Your task to perform on an android device: Add dell xps to the cart on bestbuy.com, then select checkout. Image 0: 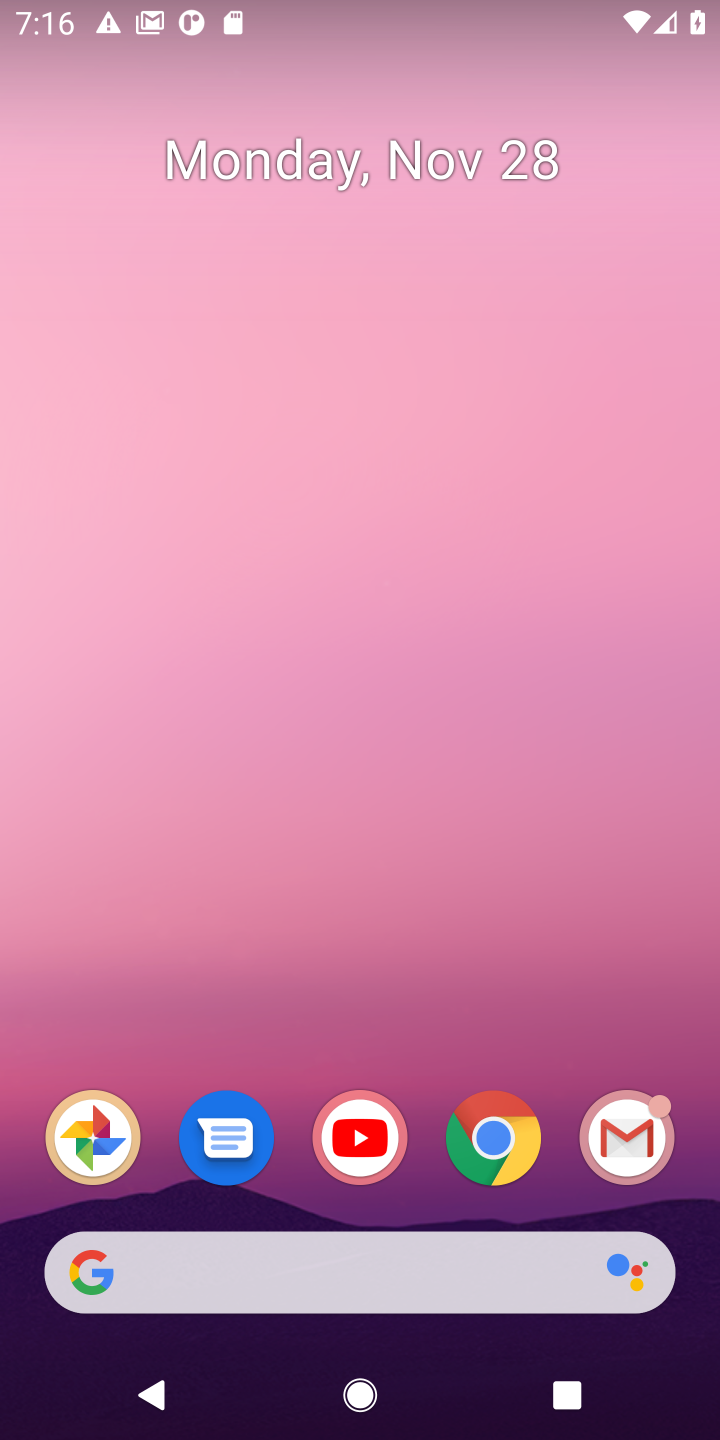
Step 0: click (481, 1141)
Your task to perform on an android device: Add dell xps to the cart on bestbuy.com, then select checkout. Image 1: 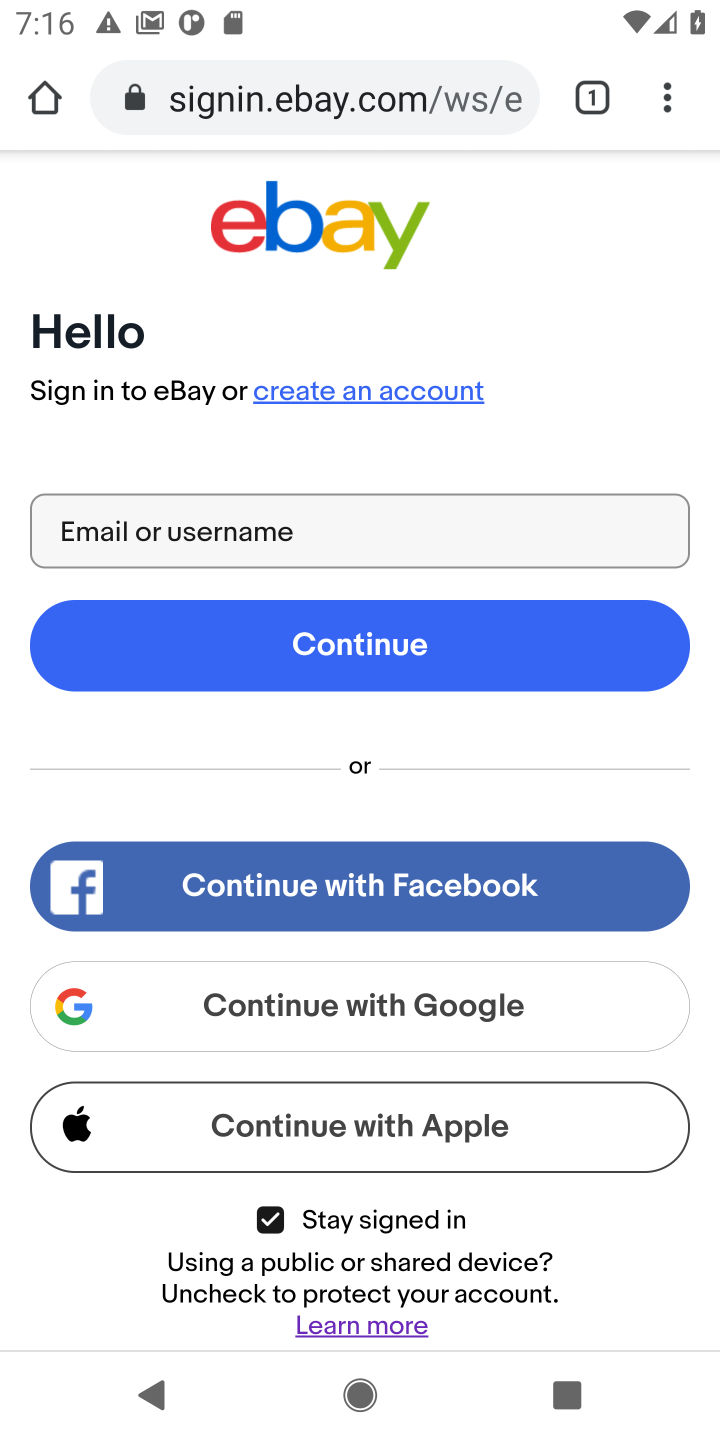
Step 1: click (236, 101)
Your task to perform on an android device: Add dell xps to the cart on bestbuy.com, then select checkout. Image 2: 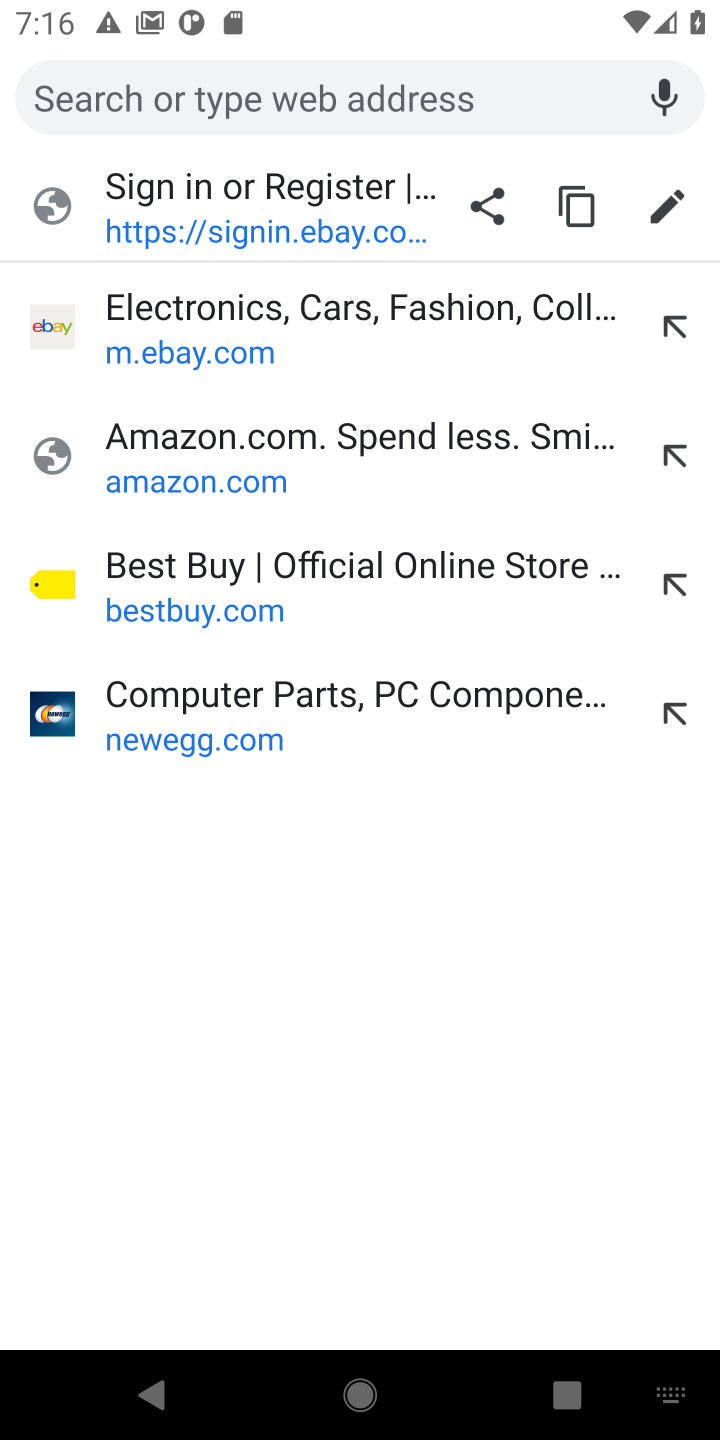
Step 2: click (169, 608)
Your task to perform on an android device: Add dell xps to the cart on bestbuy.com, then select checkout. Image 3: 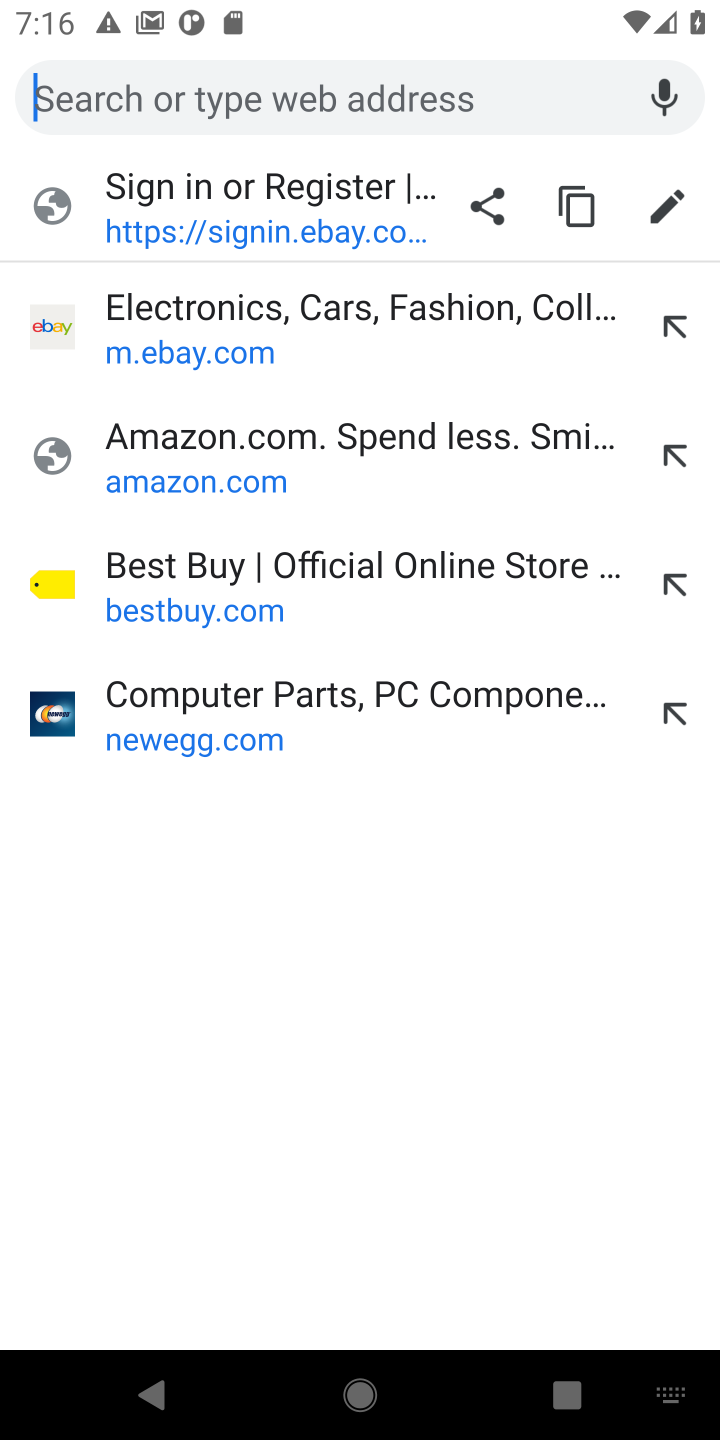
Step 3: click (117, 584)
Your task to perform on an android device: Add dell xps to the cart on bestbuy.com, then select checkout. Image 4: 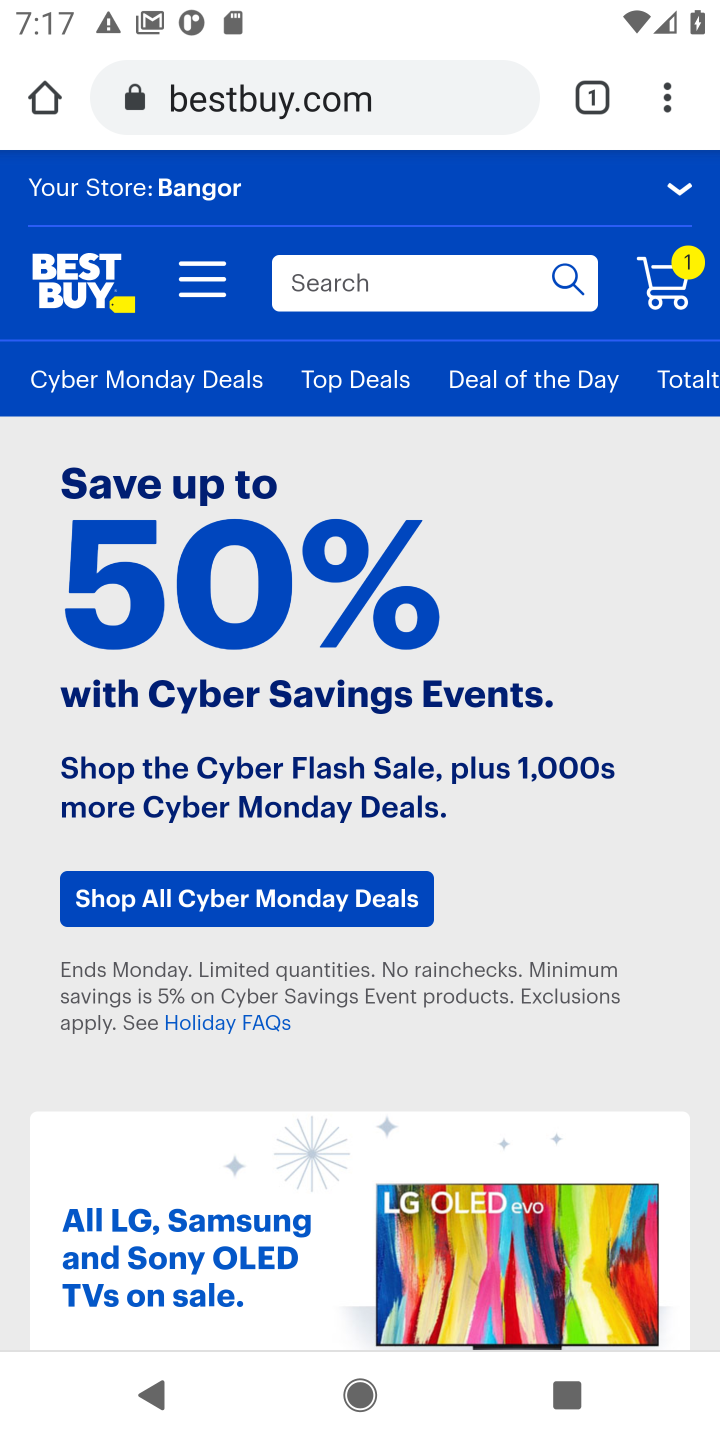
Step 4: click (340, 283)
Your task to perform on an android device: Add dell xps to the cart on bestbuy.com, then select checkout. Image 5: 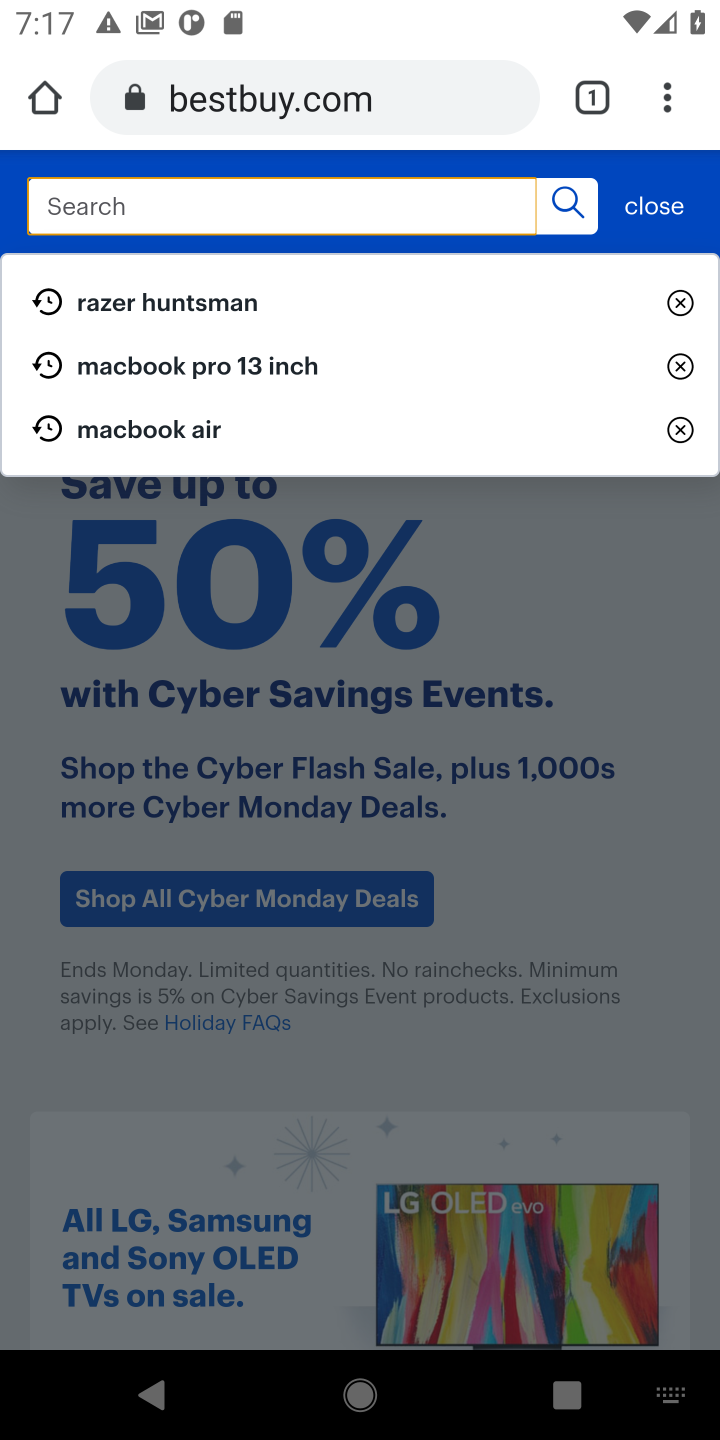
Step 5: type "dell xps"
Your task to perform on an android device: Add dell xps to the cart on bestbuy.com, then select checkout. Image 6: 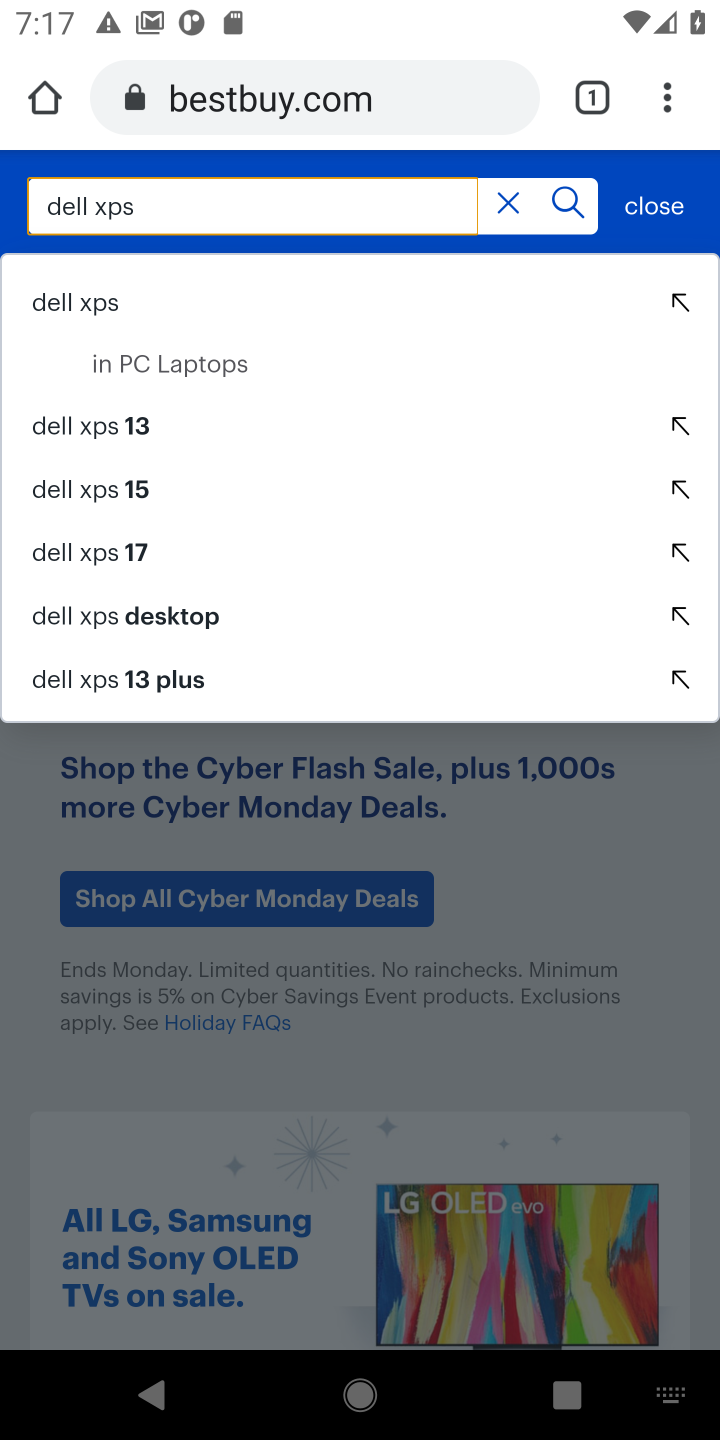
Step 6: click (38, 309)
Your task to perform on an android device: Add dell xps to the cart on bestbuy.com, then select checkout. Image 7: 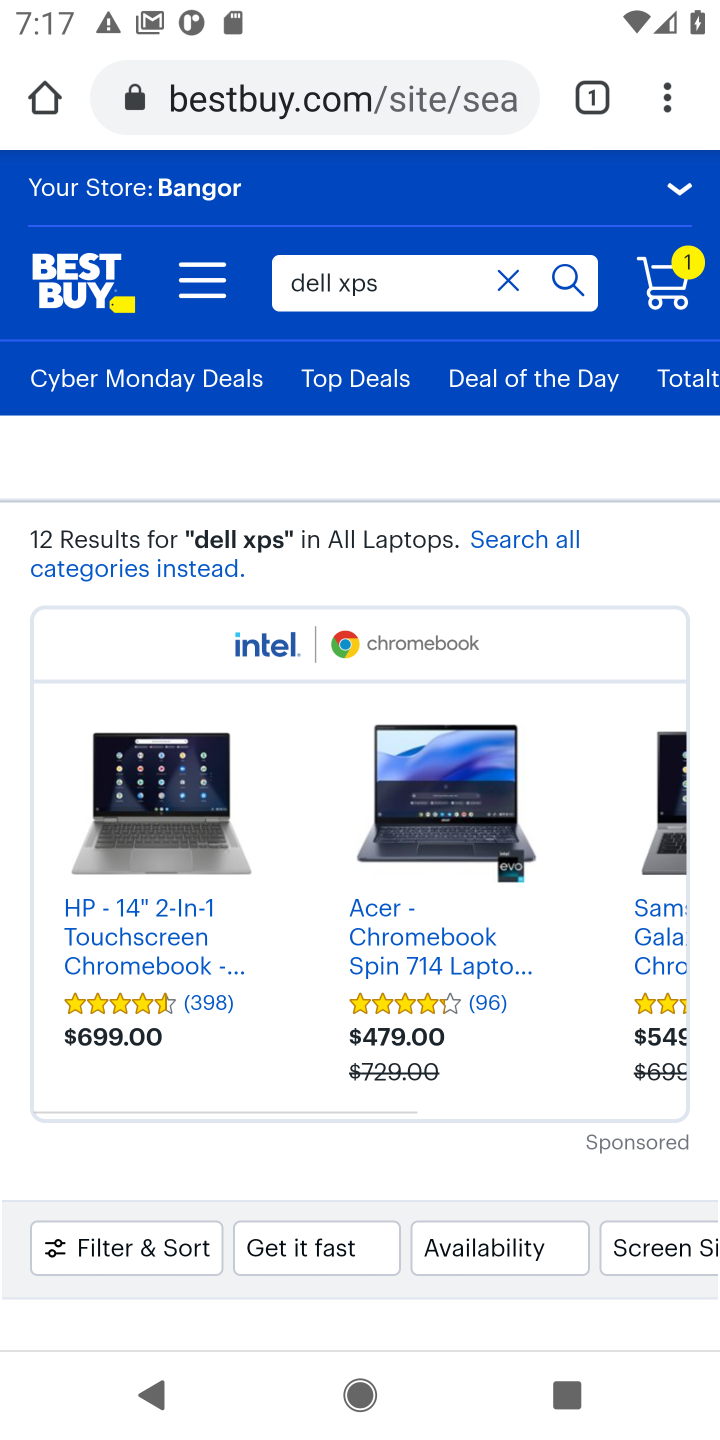
Step 7: drag from (572, 802) to (555, 311)
Your task to perform on an android device: Add dell xps to the cart on bestbuy.com, then select checkout. Image 8: 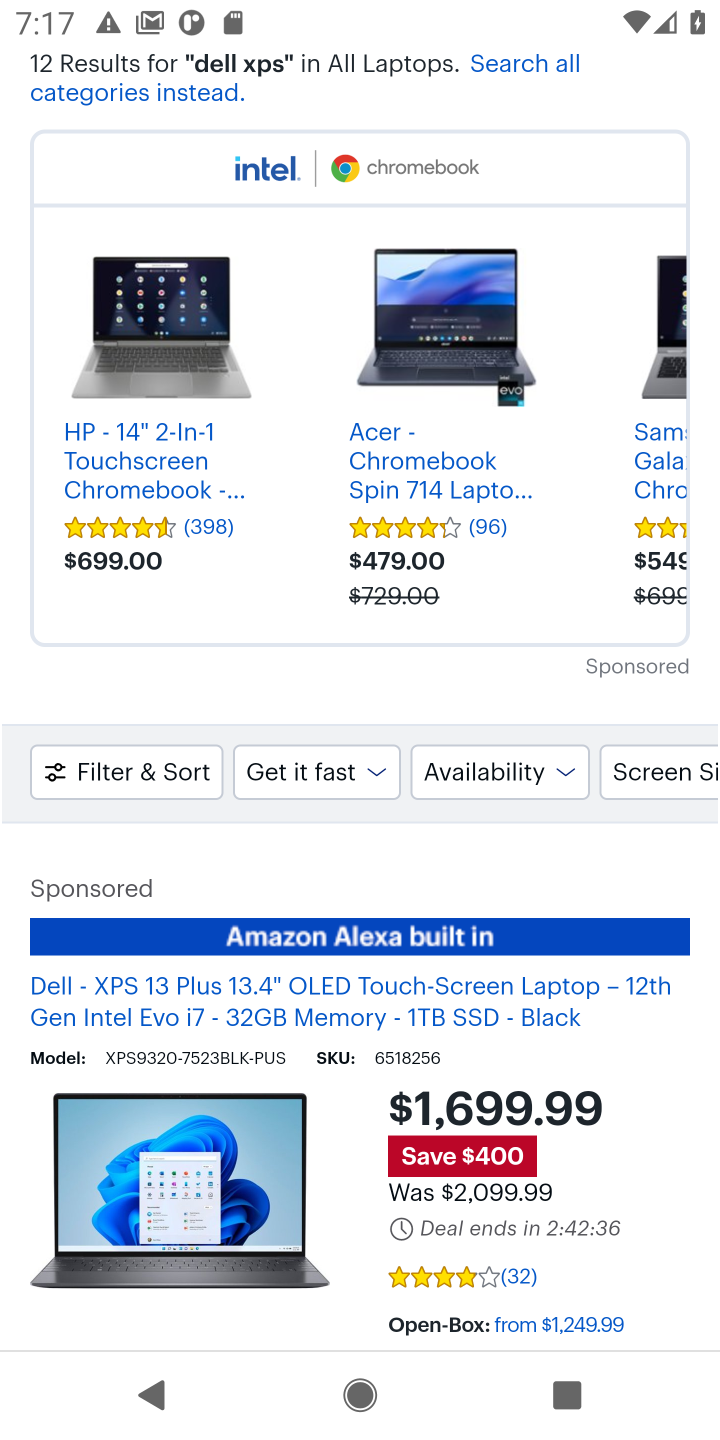
Step 8: drag from (461, 855) to (466, 438)
Your task to perform on an android device: Add dell xps to the cart on bestbuy.com, then select checkout. Image 9: 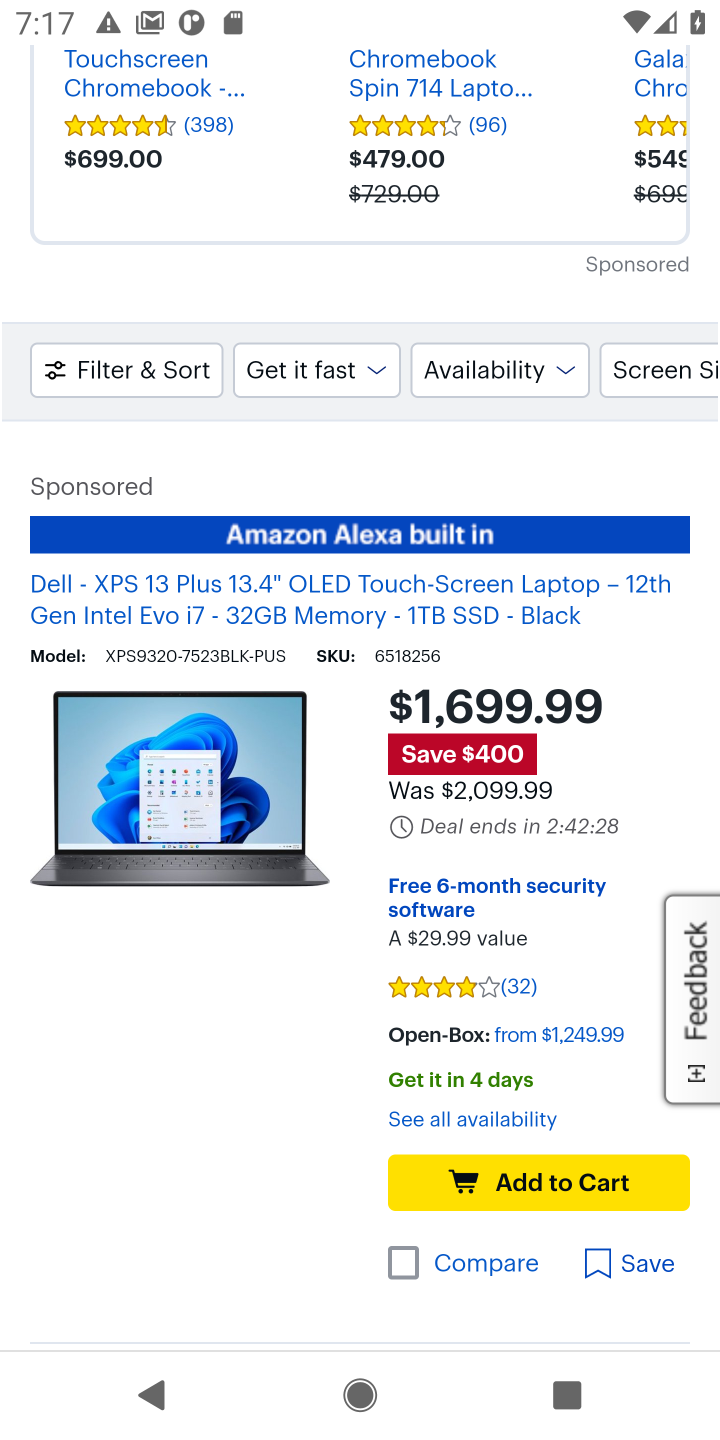
Step 9: click (505, 1193)
Your task to perform on an android device: Add dell xps to the cart on bestbuy.com, then select checkout. Image 10: 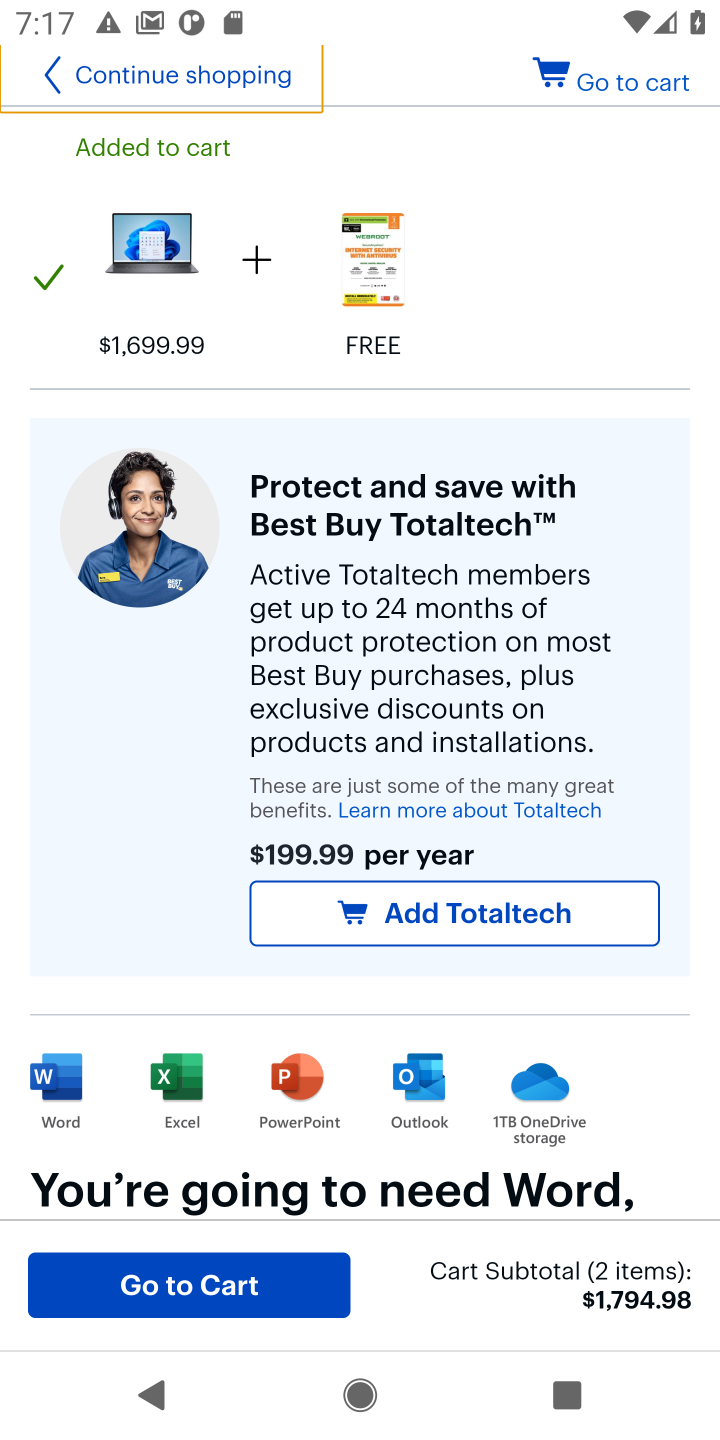
Step 10: click (613, 82)
Your task to perform on an android device: Add dell xps to the cart on bestbuy.com, then select checkout. Image 11: 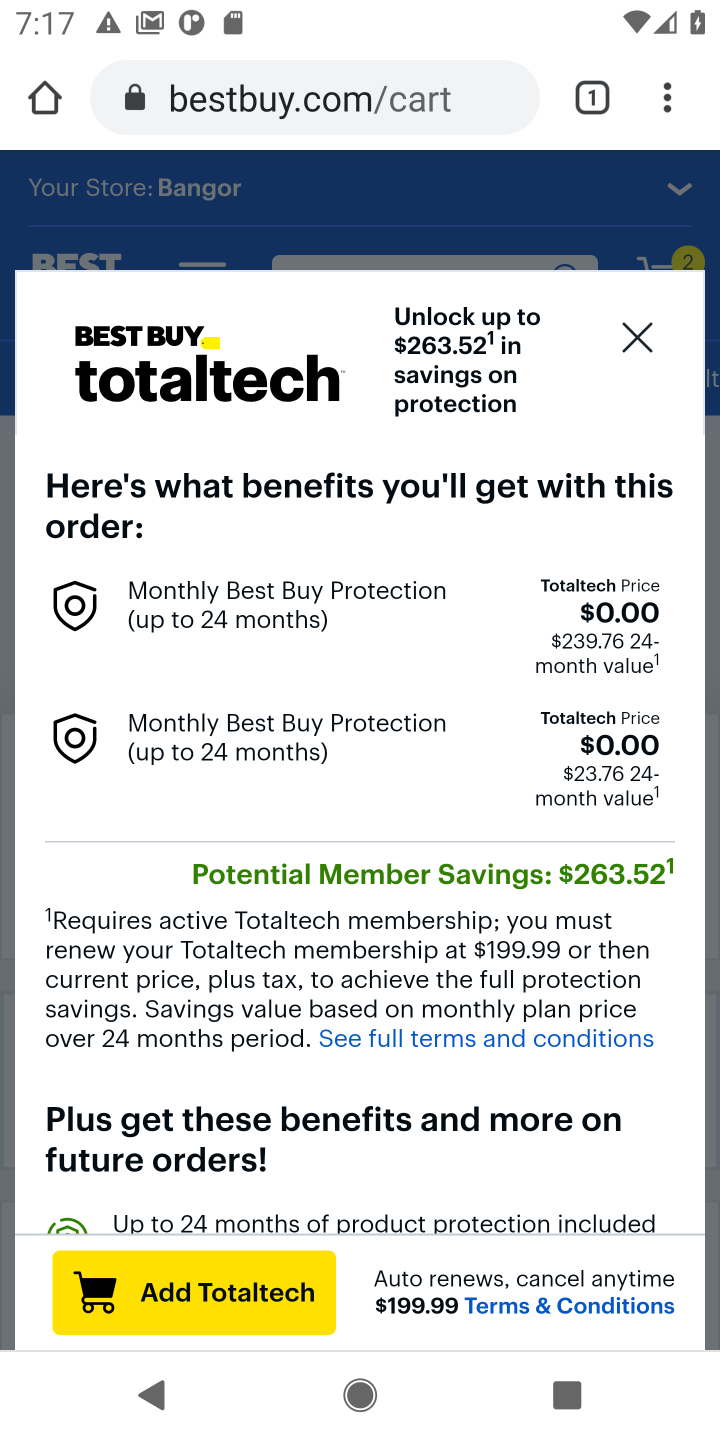
Step 11: click (641, 336)
Your task to perform on an android device: Add dell xps to the cart on bestbuy.com, then select checkout. Image 12: 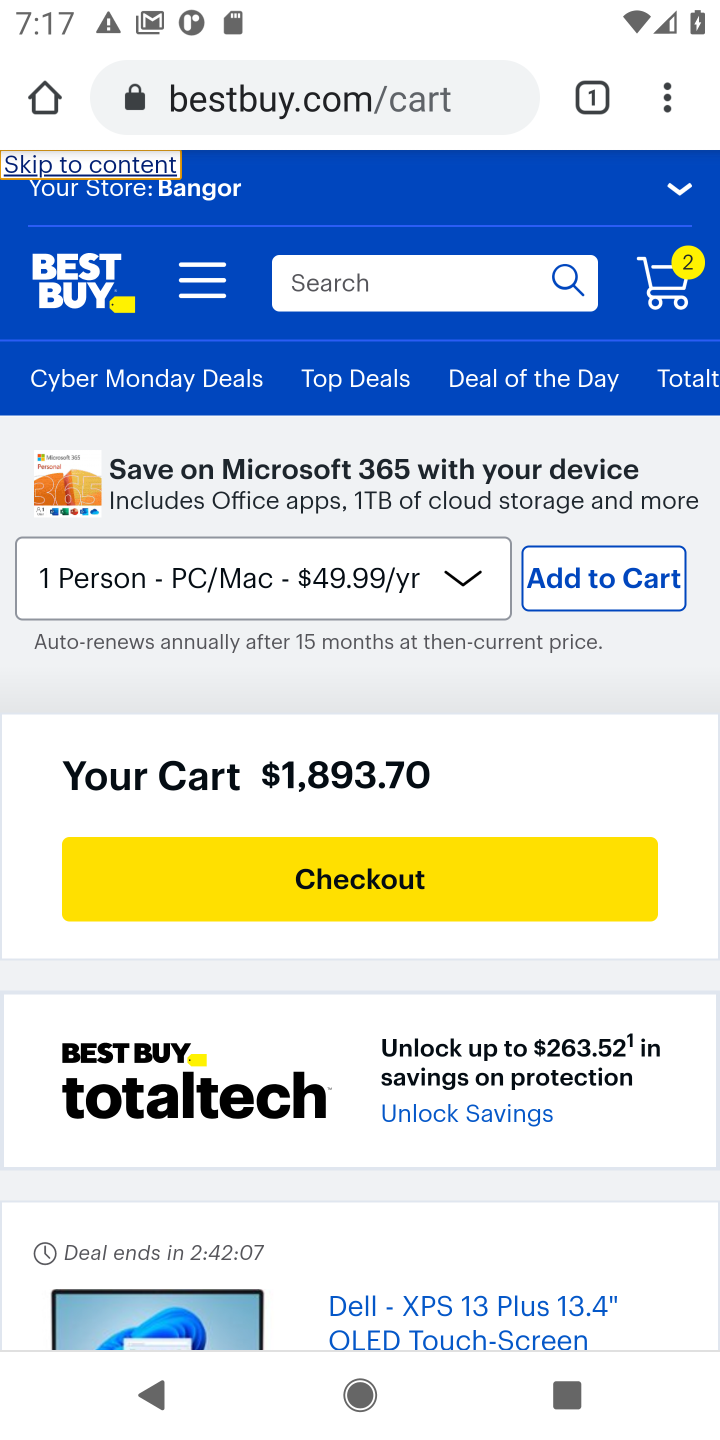
Step 12: click (370, 886)
Your task to perform on an android device: Add dell xps to the cart on bestbuy.com, then select checkout. Image 13: 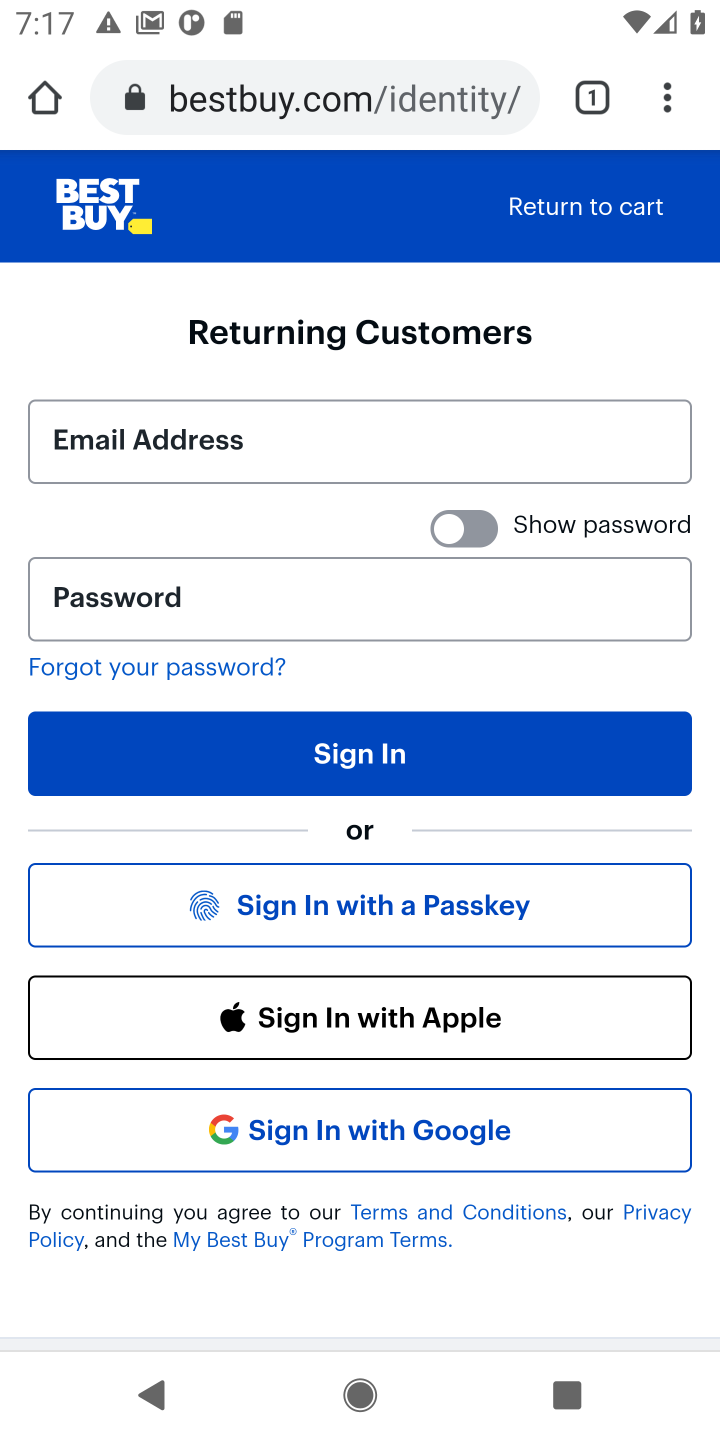
Step 13: task complete